Your task to perform on an android device: set an alarm Image 0: 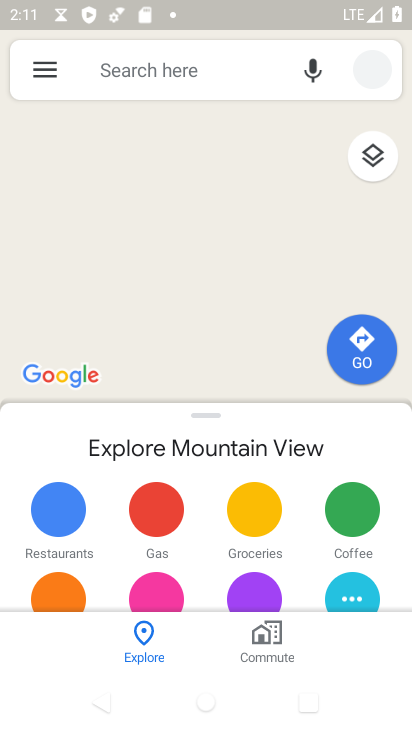
Step 0: drag from (332, 427) to (375, 333)
Your task to perform on an android device: set an alarm Image 1: 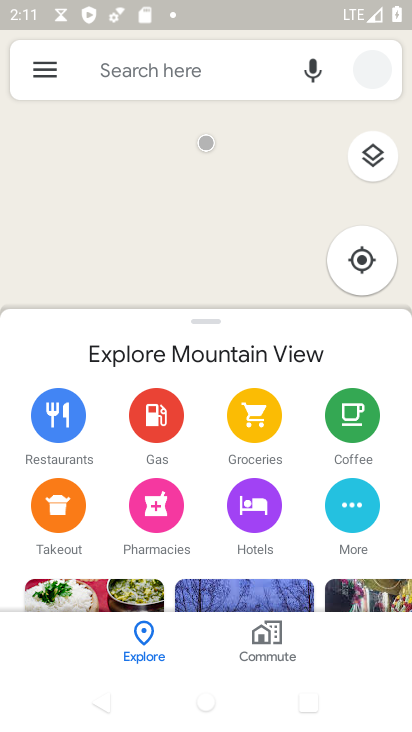
Step 1: press home button
Your task to perform on an android device: set an alarm Image 2: 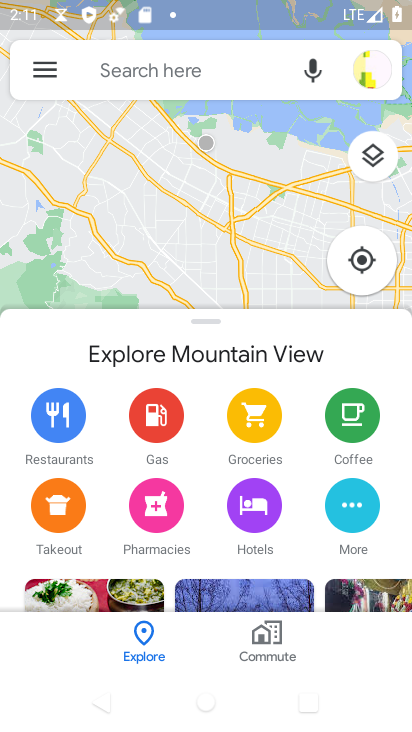
Step 2: drag from (375, 333) to (398, 518)
Your task to perform on an android device: set an alarm Image 3: 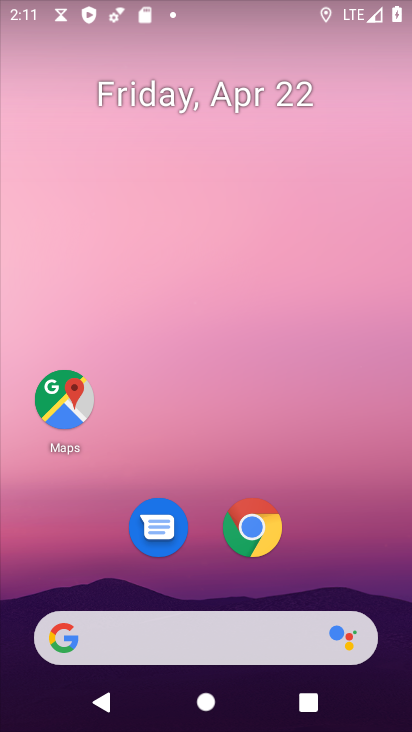
Step 3: drag from (348, 529) to (331, 74)
Your task to perform on an android device: set an alarm Image 4: 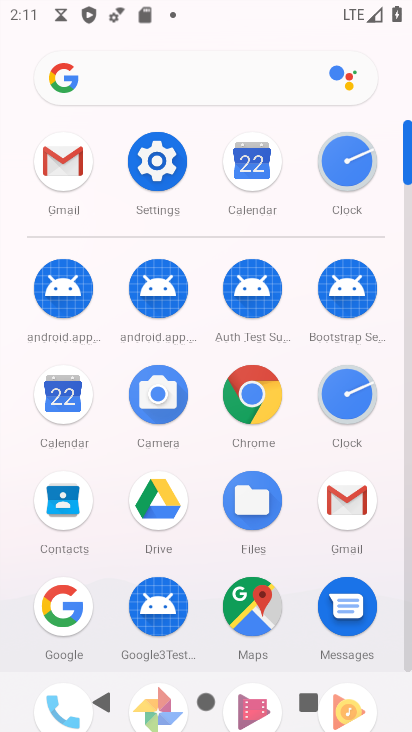
Step 4: click (342, 171)
Your task to perform on an android device: set an alarm Image 5: 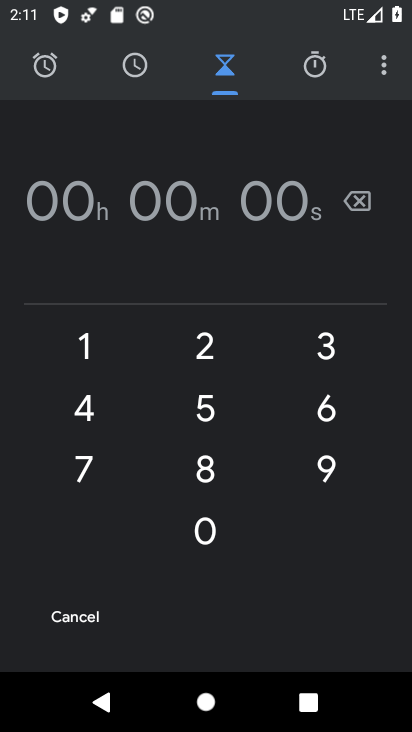
Step 5: click (39, 77)
Your task to perform on an android device: set an alarm Image 6: 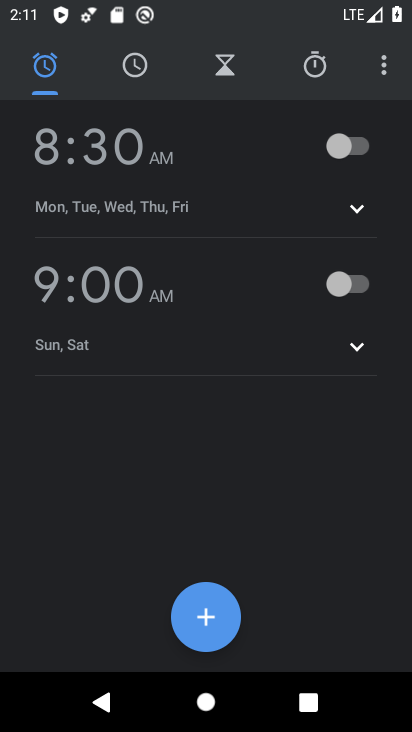
Step 6: click (216, 612)
Your task to perform on an android device: set an alarm Image 7: 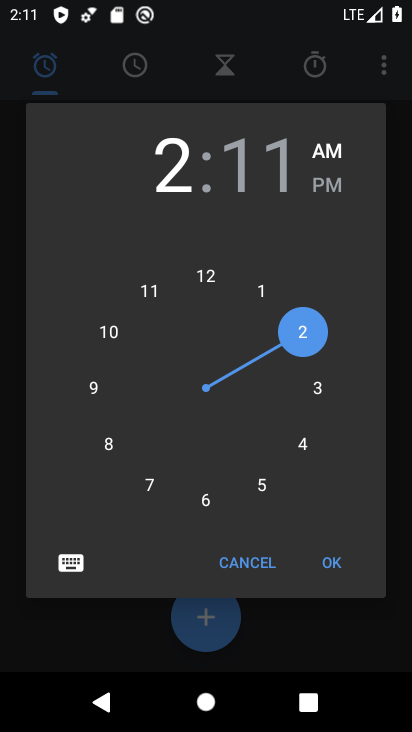
Step 7: click (266, 489)
Your task to perform on an android device: set an alarm Image 8: 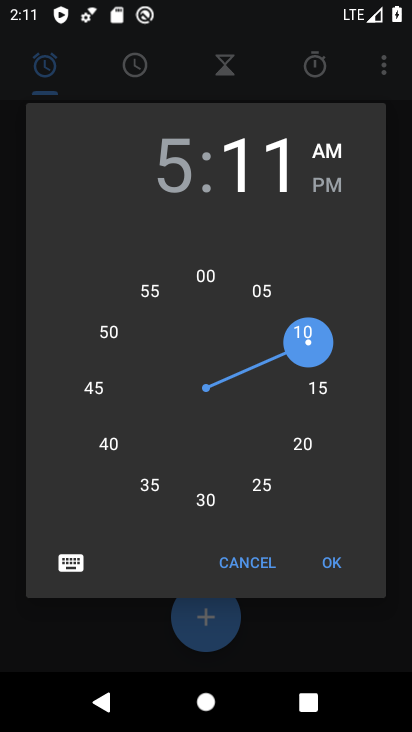
Step 8: click (153, 484)
Your task to perform on an android device: set an alarm Image 9: 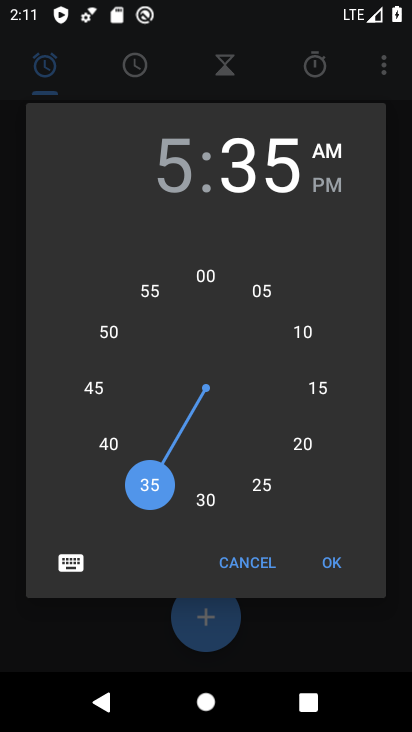
Step 9: click (339, 563)
Your task to perform on an android device: set an alarm Image 10: 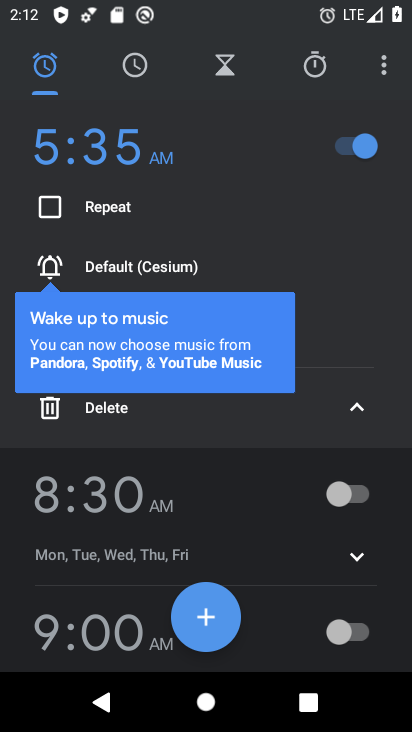
Step 10: click (361, 411)
Your task to perform on an android device: set an alarm Image 11: 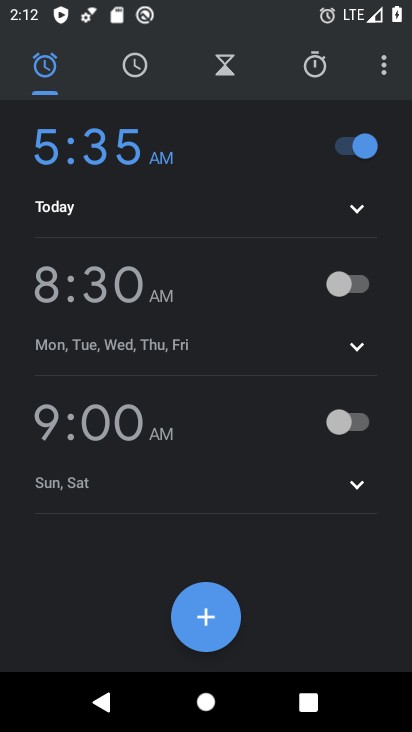
Step 11: task complete